Your task to perform on an android device: What's a goodrestaurant in Austin? Image 0: 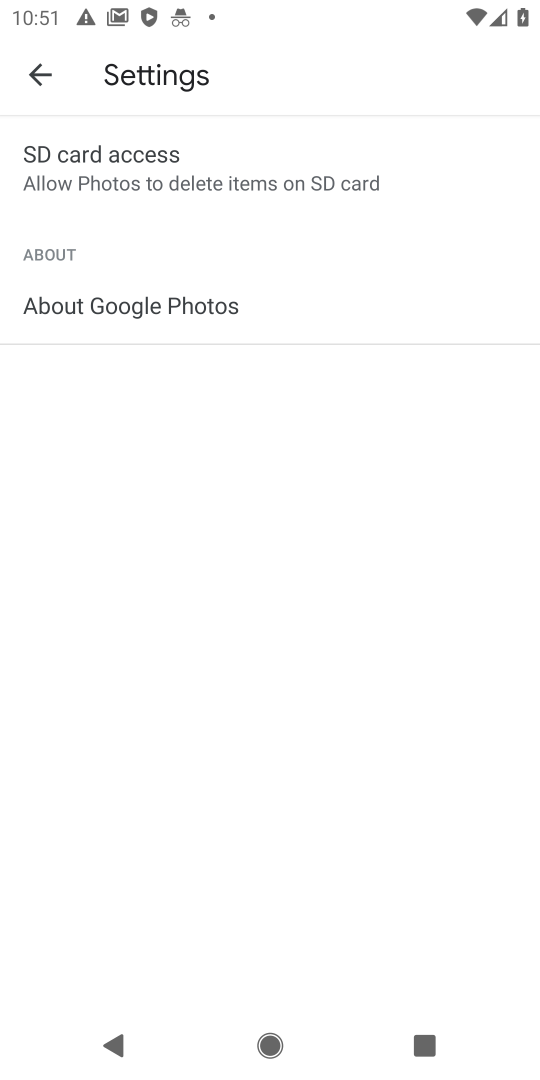
Step 0: press home button
Your task to perform on an android device: What's a goodrestaurant in Austin? Image 1: 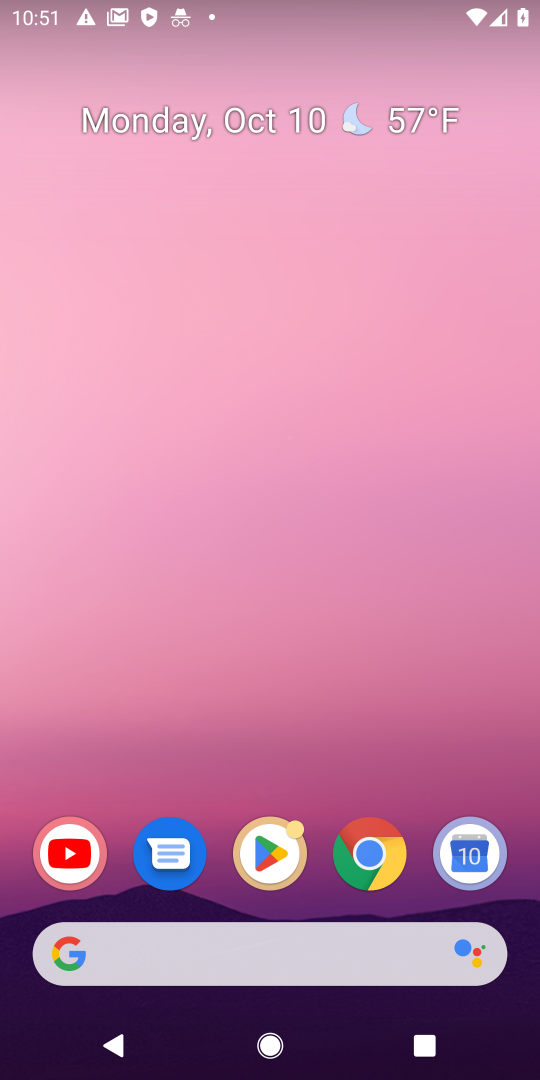
Step 1: click (246, 962)
Your task to perform on an android device: What's a goodrestaurant in Austin? Image 2: 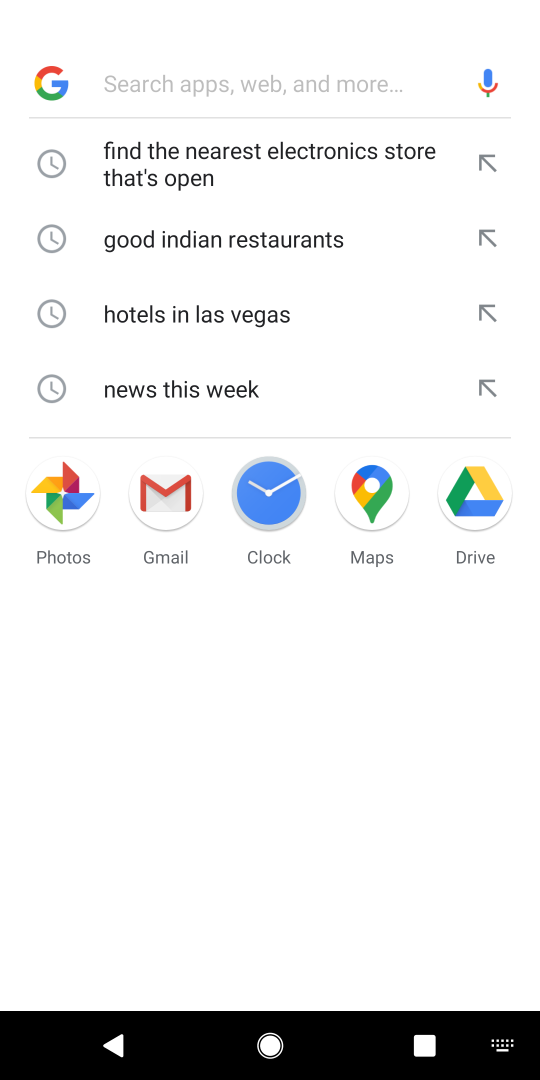
Step 2: type "What's a goodrestaurant in Austin"
Your task to perform on an android device: What's a goodrestaurant in Austin? Image 3: 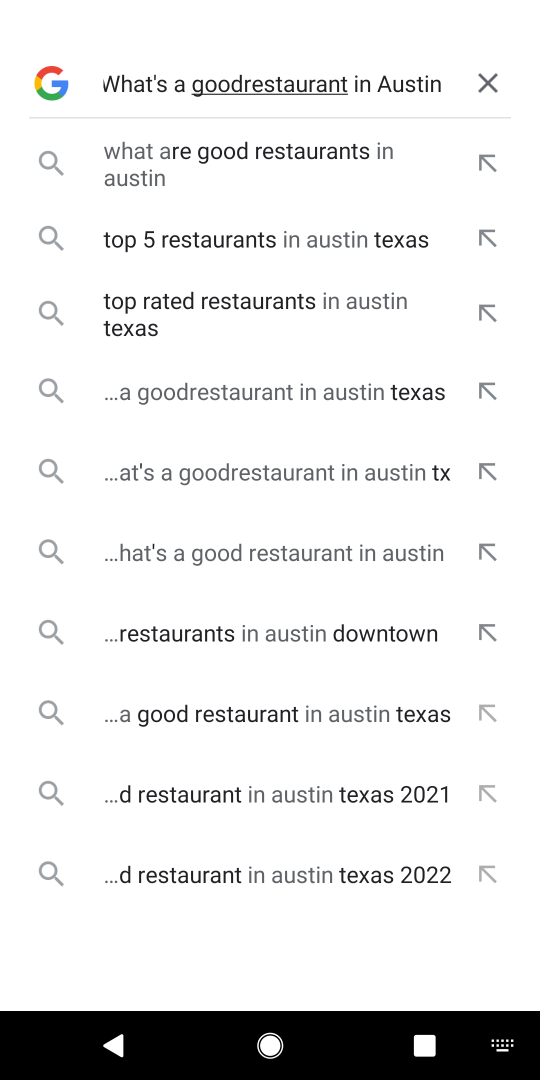
Step 3: press enter
Your task to perform on an android device: What's a goodrestaurant in Austin? Image 4: 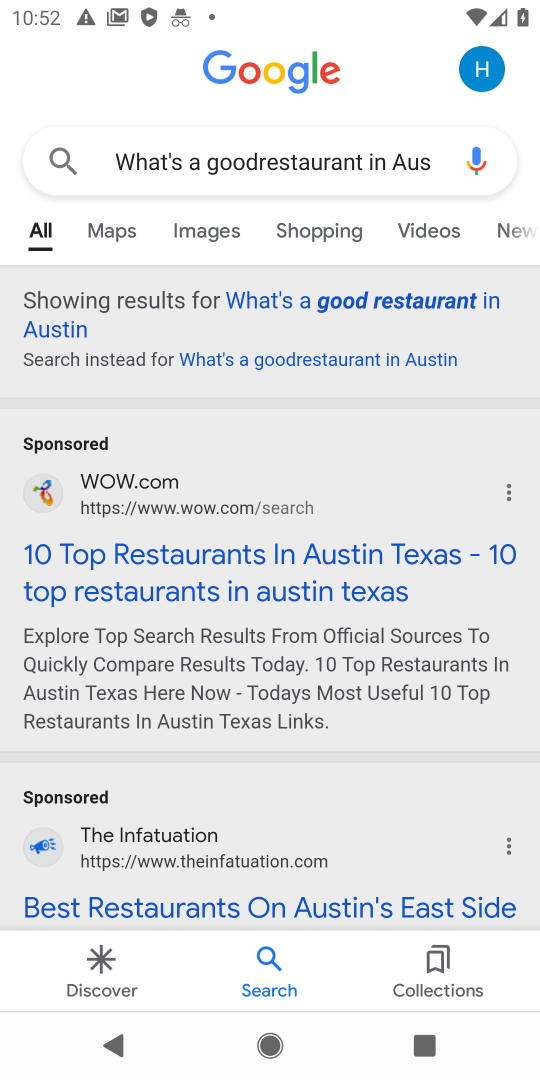
Step 4: drag from (373, 733) to (396, 560)
Your task to perform on an android device: What's a goodrestaurant in Austin? Image 5: 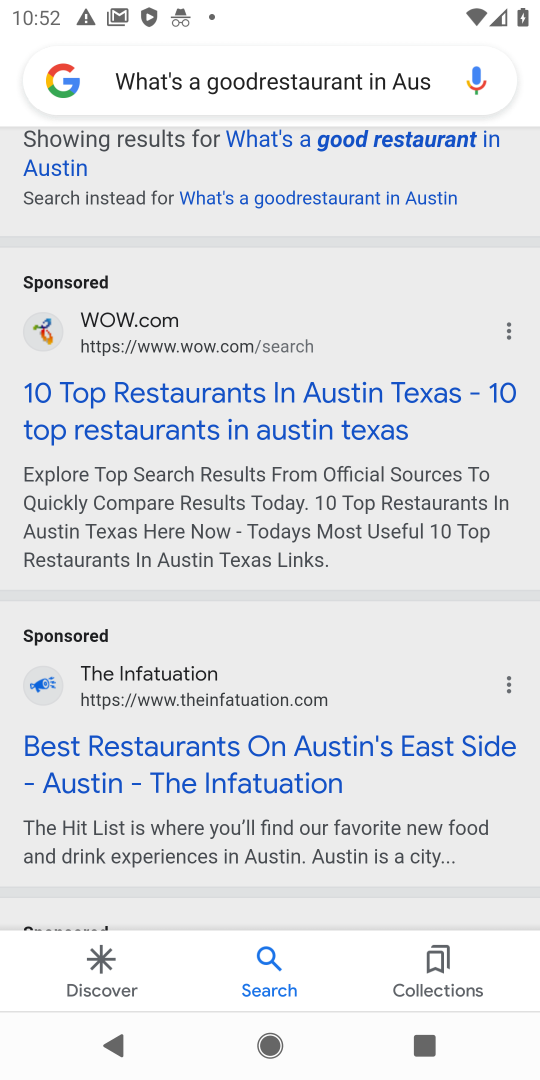
Step 5: drag from (371, 707) to (396, 530)
Your task to perform on an android device: What's a goodrestaurant in Austin? Image 6: 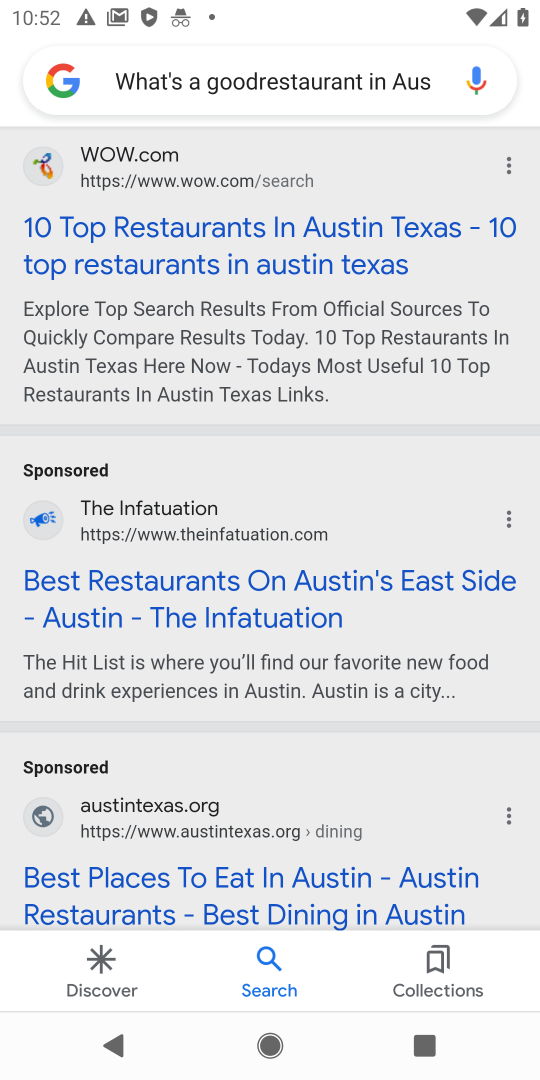
Step 6: drag from (368, 690) to (381, 558)
Your task to perform on an android device: What's a goodrestaurant in Austin? Image 7: 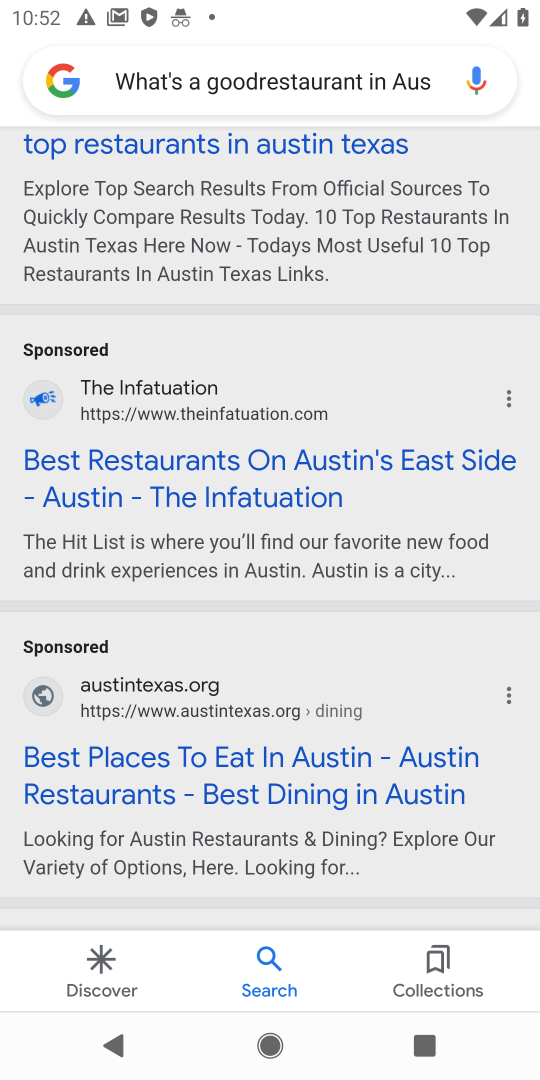
Step 7: click (332, 453)
Your task to perform on an android device: What's a goodrestaurant in Austin? Image 8: 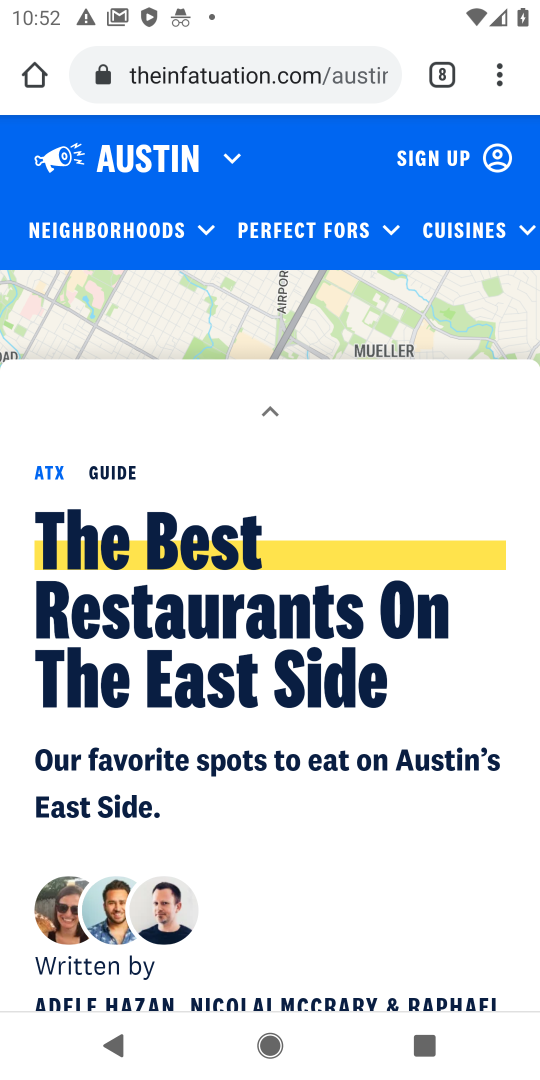
Step 8: task complete